Your task to perform on an android device: turn off airplane mode Image 0: 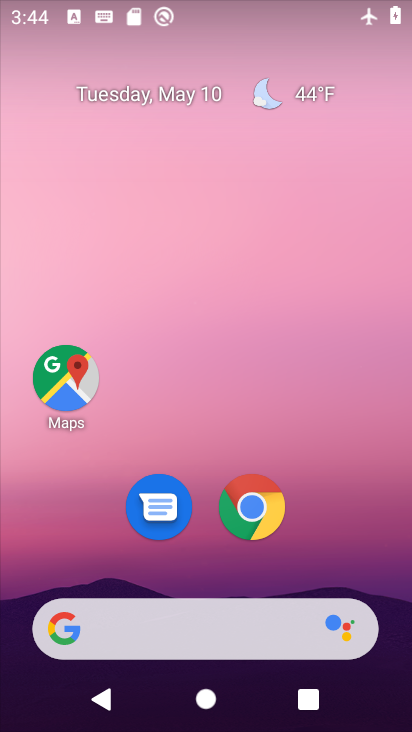
Step 0: drag from (192, 376) to (214, 168)
Your task to perform on an android device: turn off airplane mode Image 1: 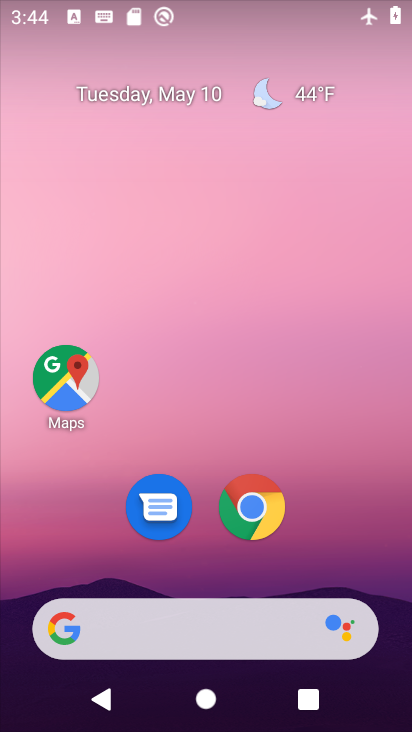
Step 1: drag from (210, 580) to (308, 70)
Your task to perform on an android device: turn off airplane mode Image 2: 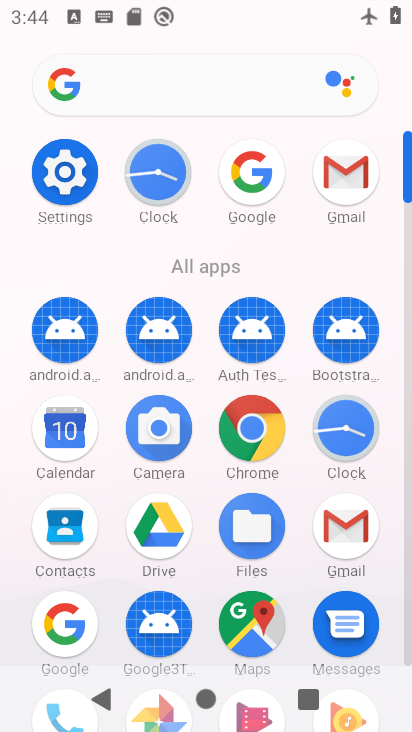
Step 2: click (64, 169)
Your task to perform on an android device: turn off airplane mode Image 3: 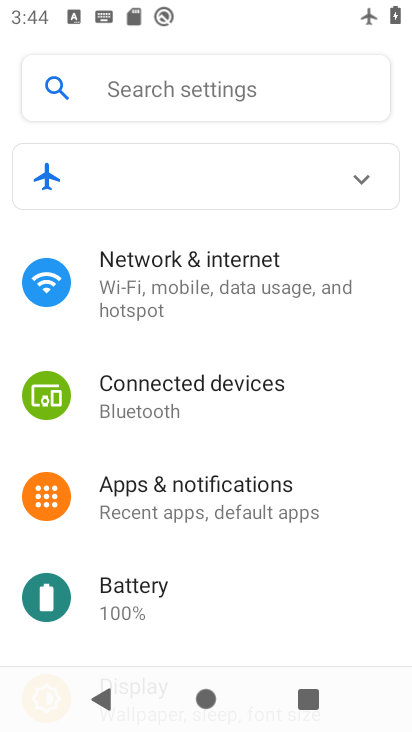
Step 3: click (191, 266)
Your task to perform on an android device: turn off airplane mode Image 4: 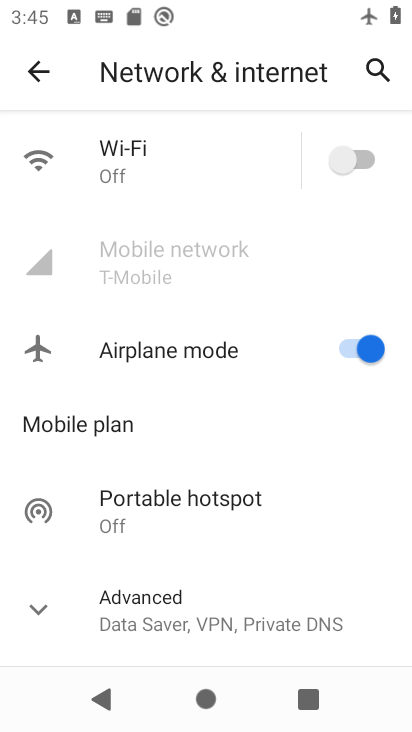
Step 4: click (344, 344)
Your task to perform on an android device: turn off airplane mode Image 5: 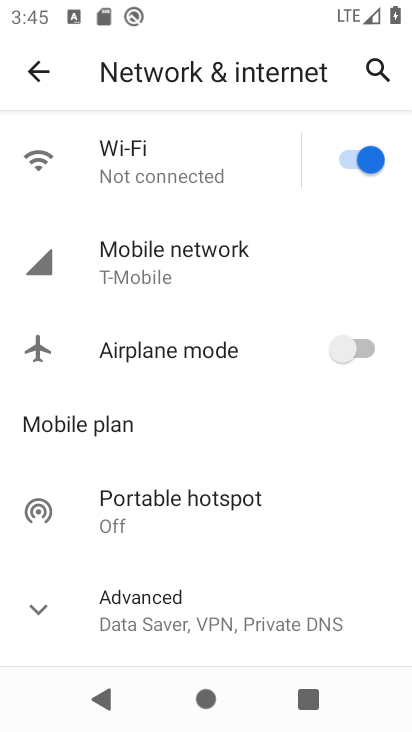
Step 5: task complete